Your task to perform on an android device: Open notification settings Image 0: 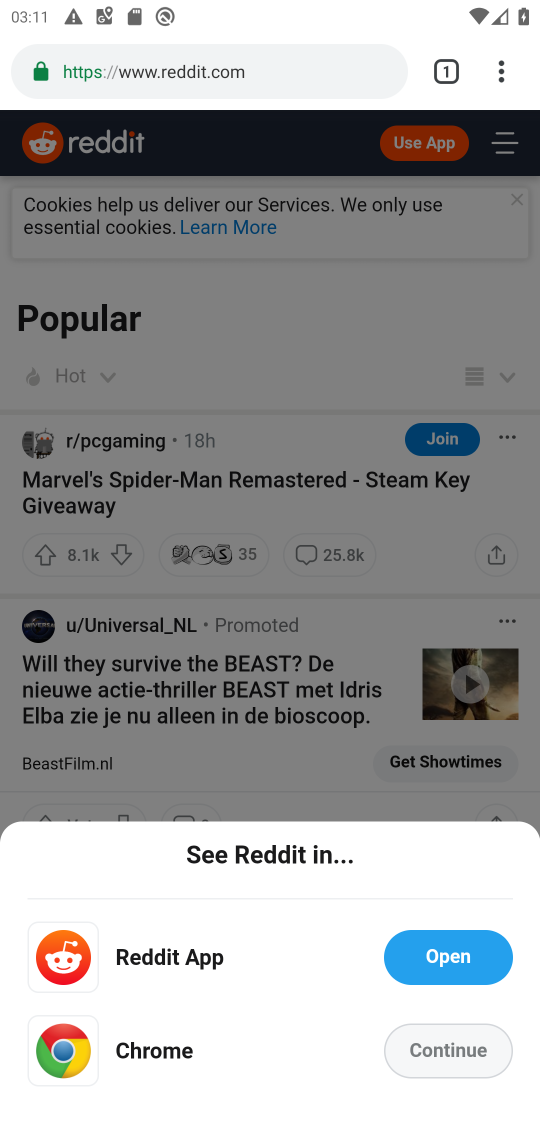
Step 0: press home button
Your task to perform on an android device: Open notification settings Image 1: 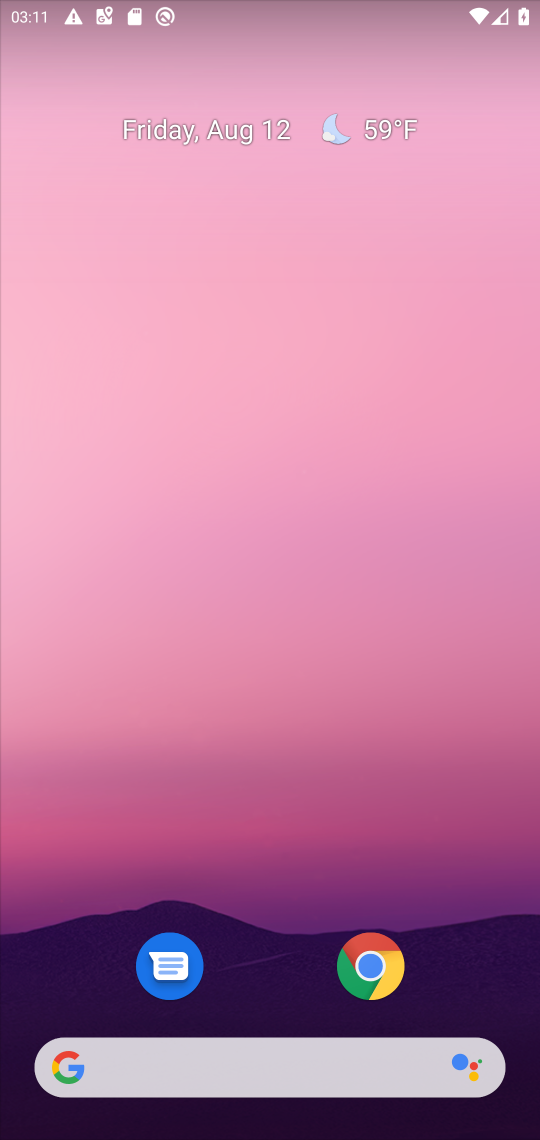
Step 1: drag from (306, 248) to (232, 837)
Your task to perform on an android device: Open notification settings Image 2: 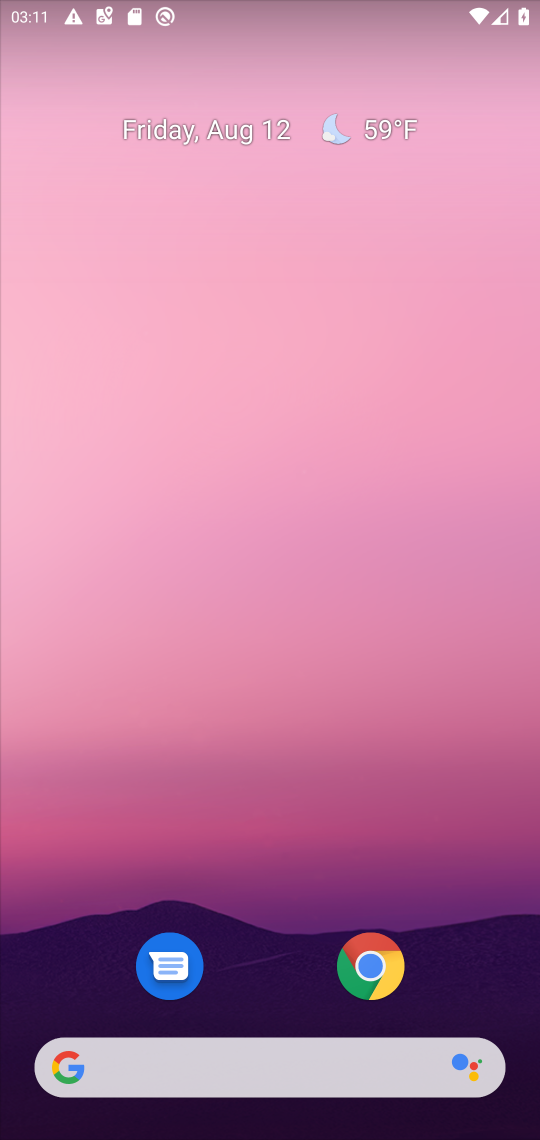
Step 2: drag from (267, 369) to (194, 0)
Your task to perform on an android device: Open notification settings Image 3: 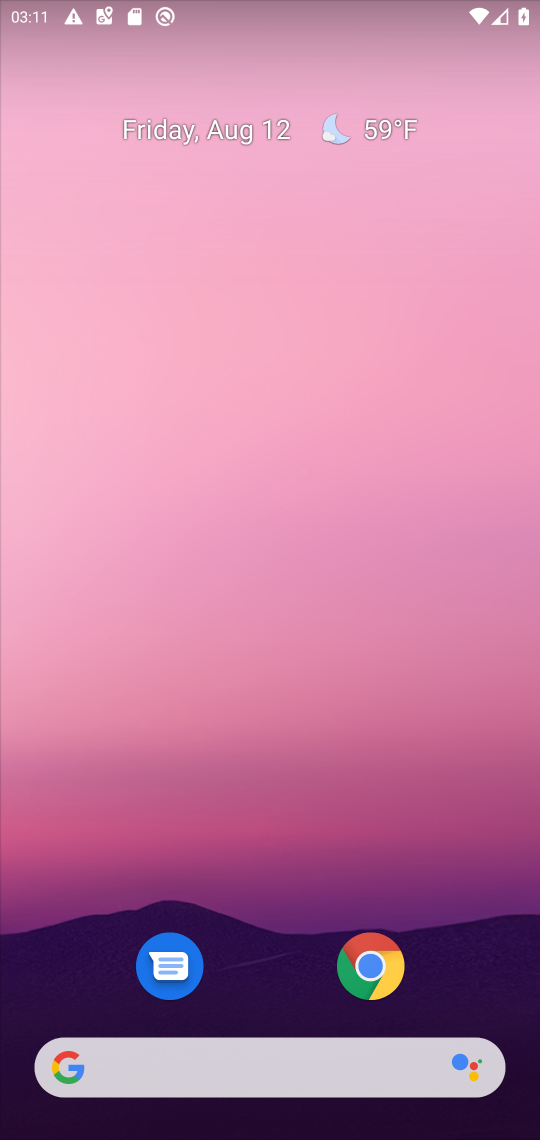
Step 3: drag from (283, 802) to (345, 21)
Your task to perform on an android device: Open notification settings Image 4: 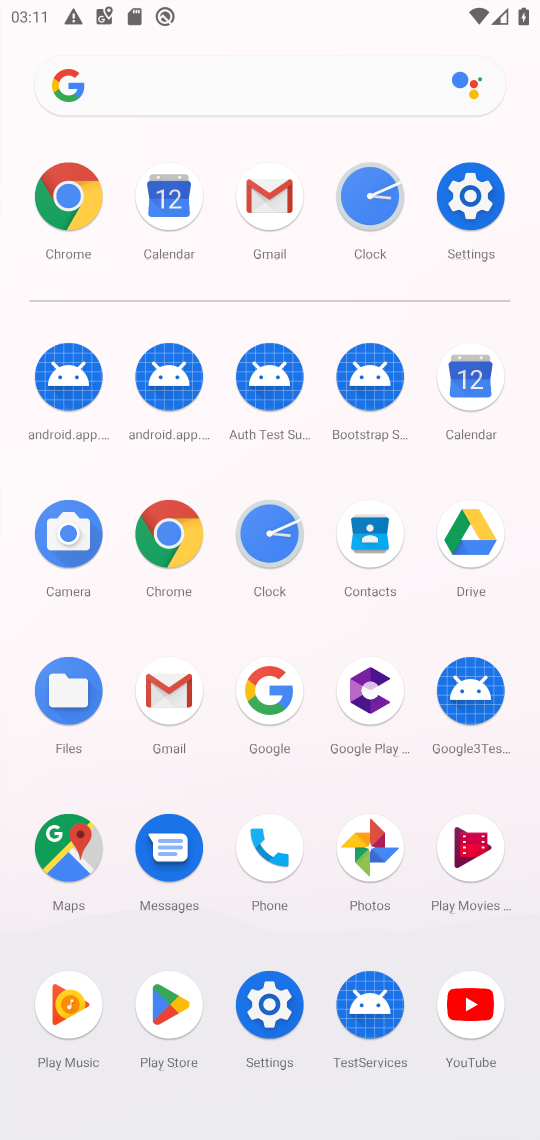
Step 4: click (480, 189)
Your task to perform on an android device: Open notification settings Image 5: 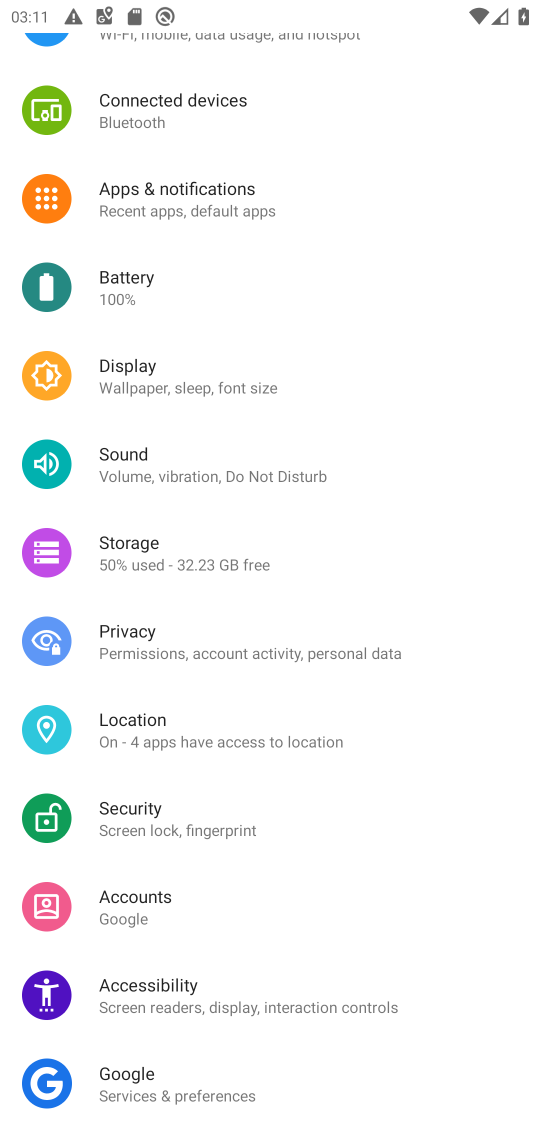
Step 5: click (204, 210)
Your task to perform on an android device: Open notification settings Image 6: 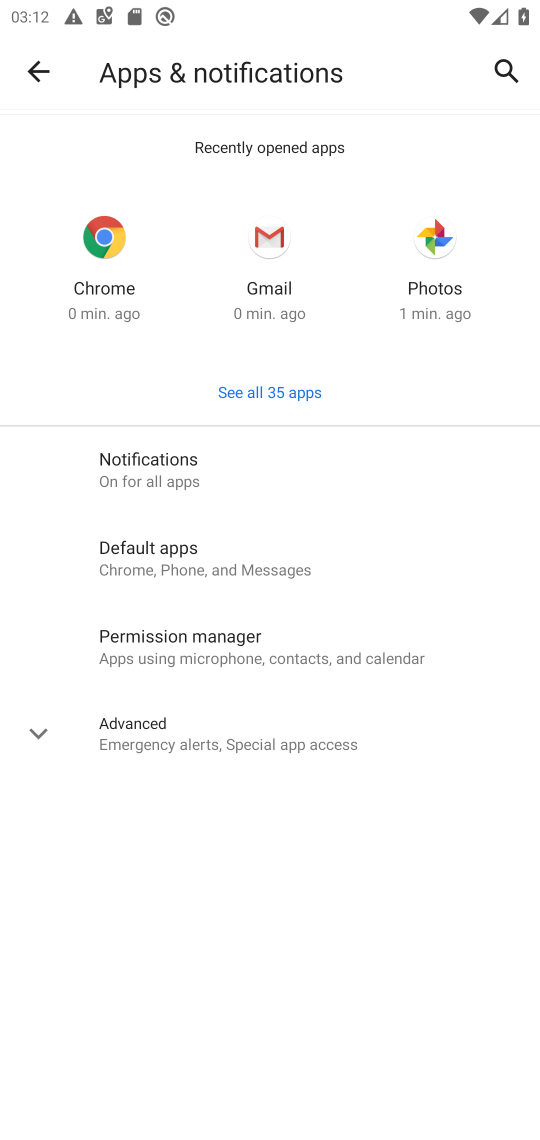
Step 6: click (151, 476)
Your task to perform on an android device: Open notification settings Image 7: 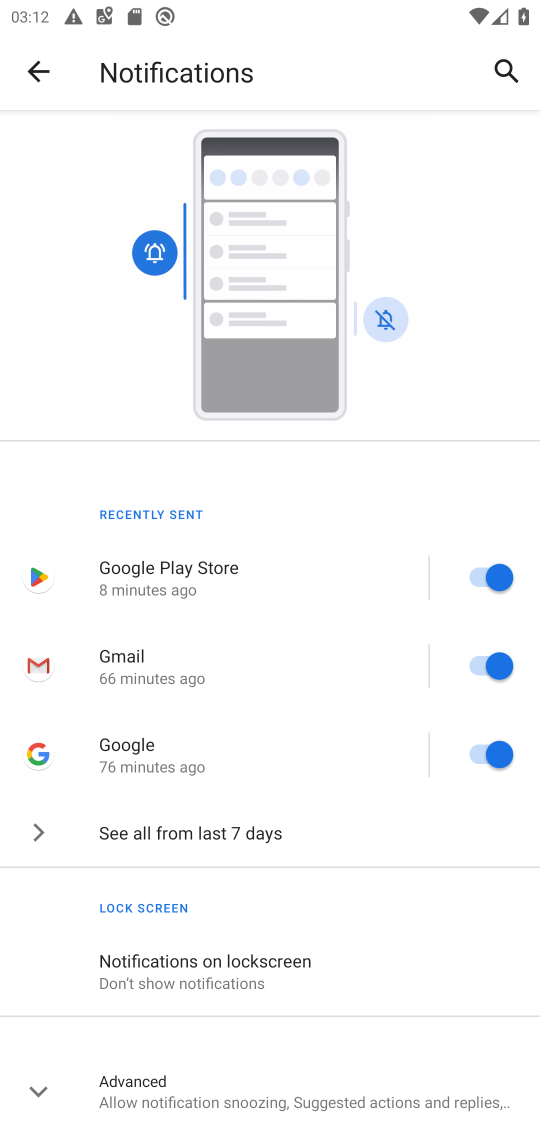
Step 7: task complete